Your task to perform on an android device: turn off translation in the chrome app Image 0: 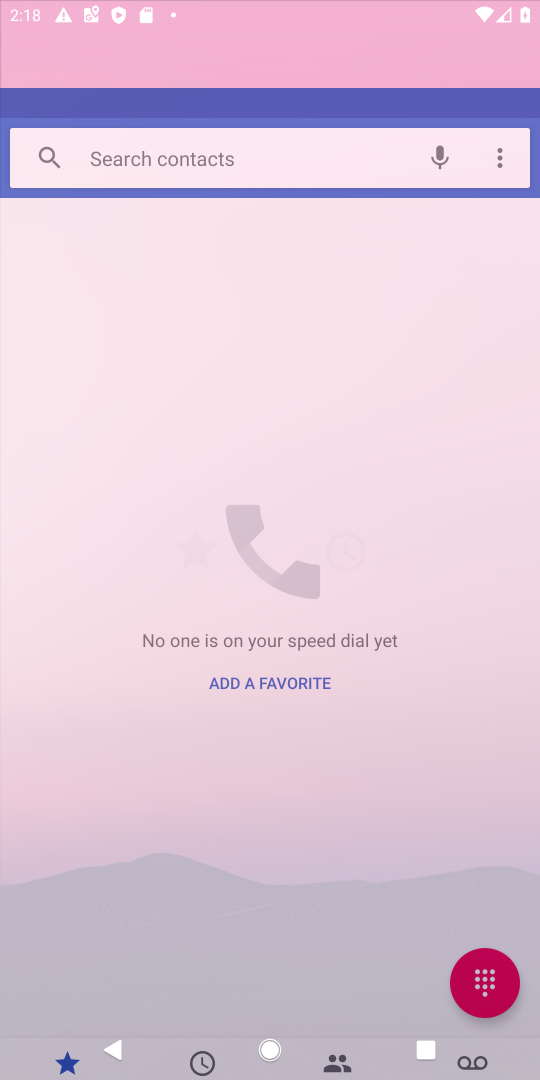
Step 0: press back button
Your task to perform on an android device: turn off translation in the chrome app Image 1: 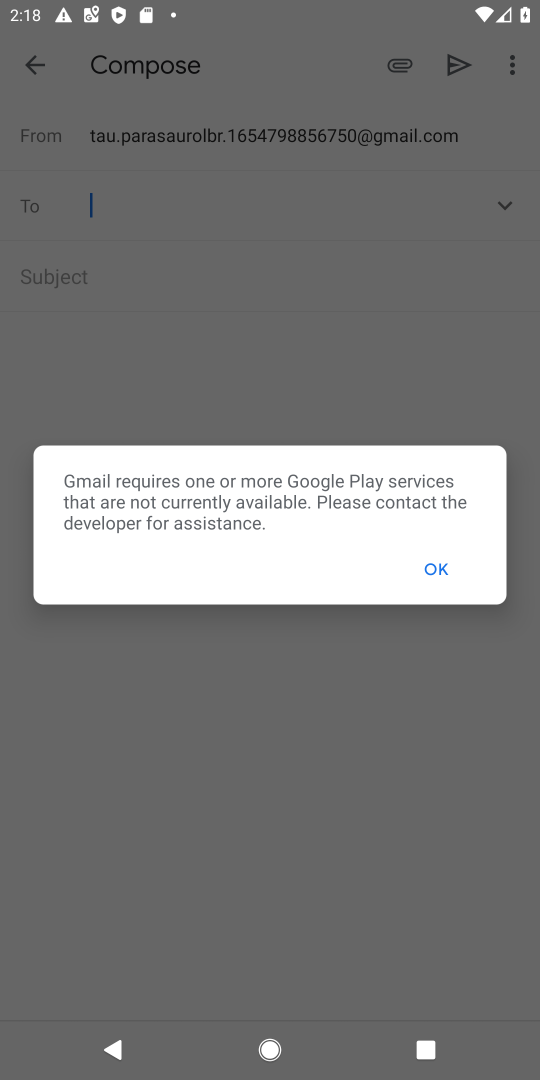
Step 1: press back button
Your task to perform on an android device: turn off translation in the chrome app Image 2: 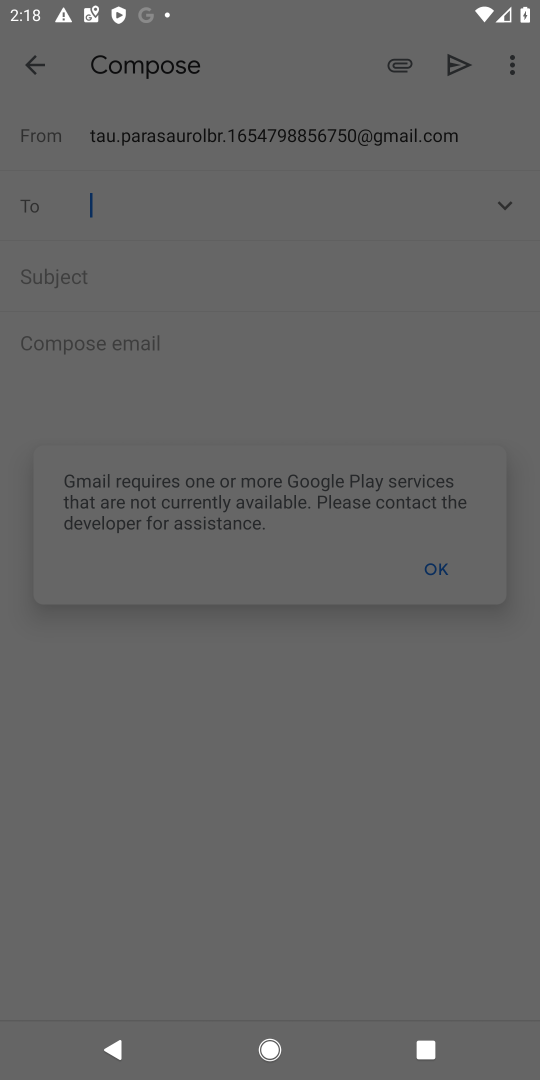
Step 2: press home button
Your task to perform on an android device: turn off translation in the chrome app Image 3: 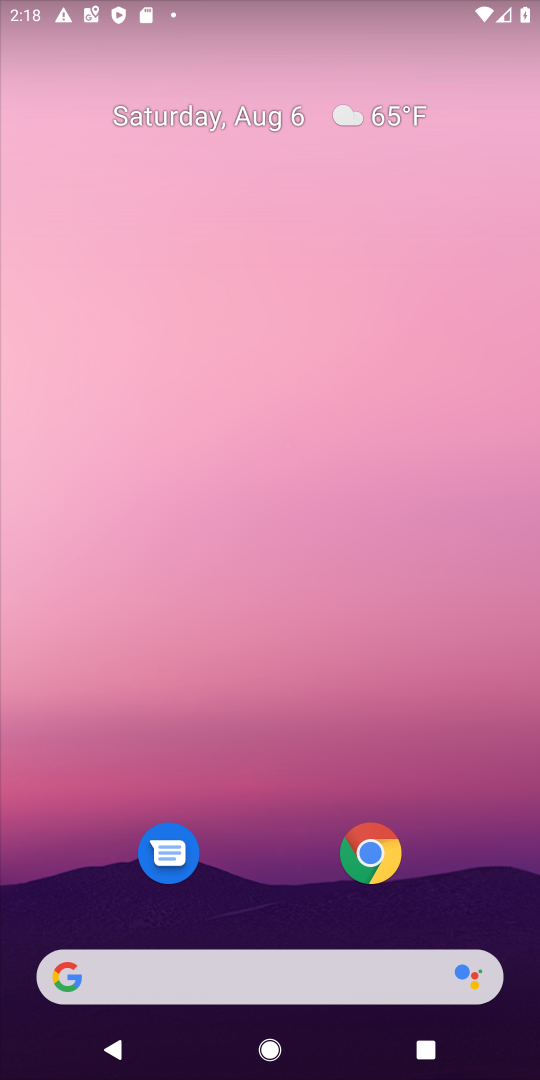
Step 3: click (372, 855)
Your task to perform on an android device: turn off translation in the chrome app Image 4: 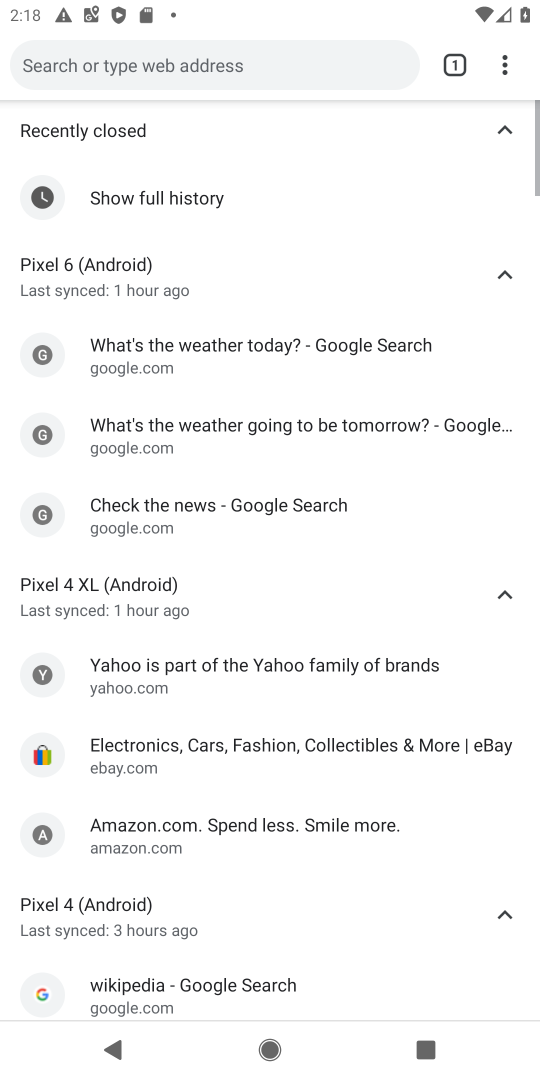
Step 4: drag from (491, 67) to (302, 551)
Your task to perform on an android device: turn off translation in the chrome app Image 5: 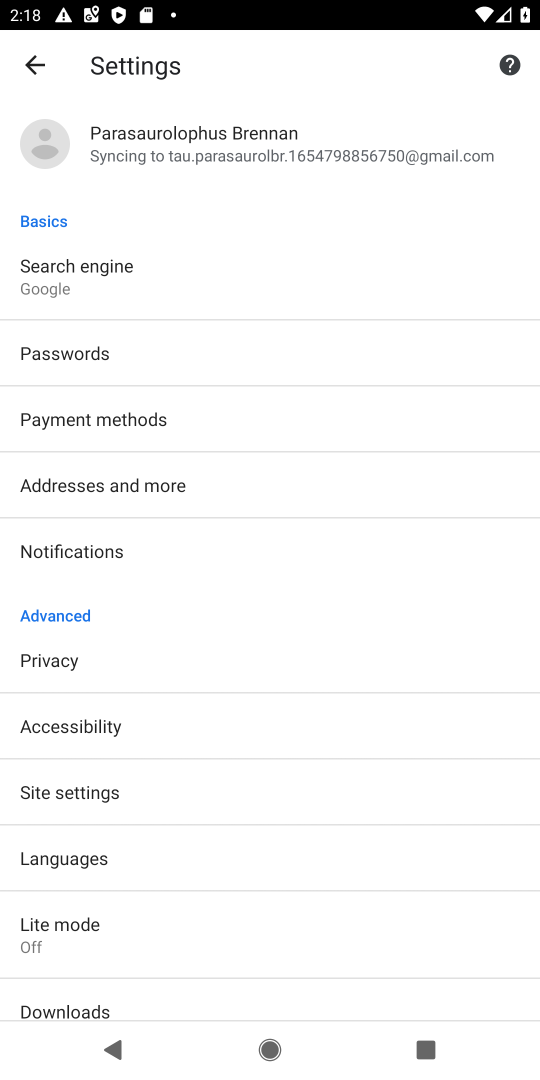
Step 5: click (83, 839)
Your task to perform on an android device: turn off translation in the chrome app Image 6: 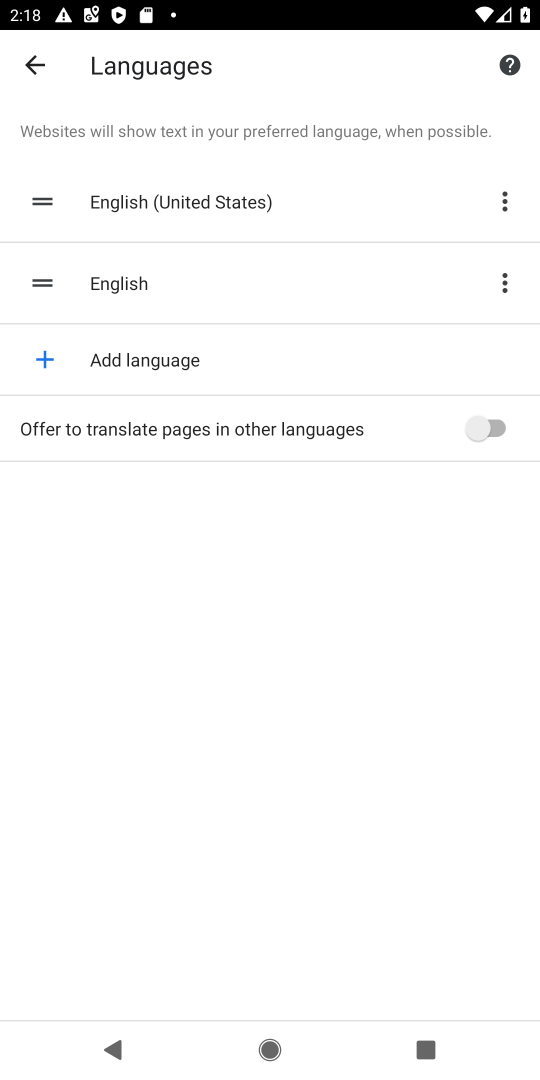
Step 6: task complete